Your task to perform on an android device: turn off smart reply in the gmail app Image 0: 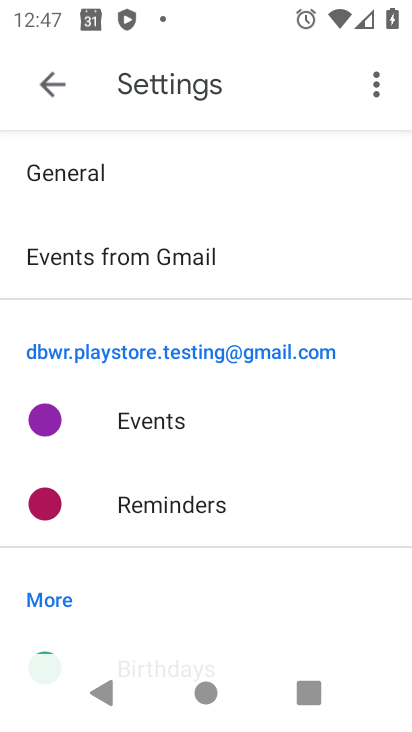
Step 0: press back button
Your task to perform on an android device: turn off smart reply in the gmail app Image 1: 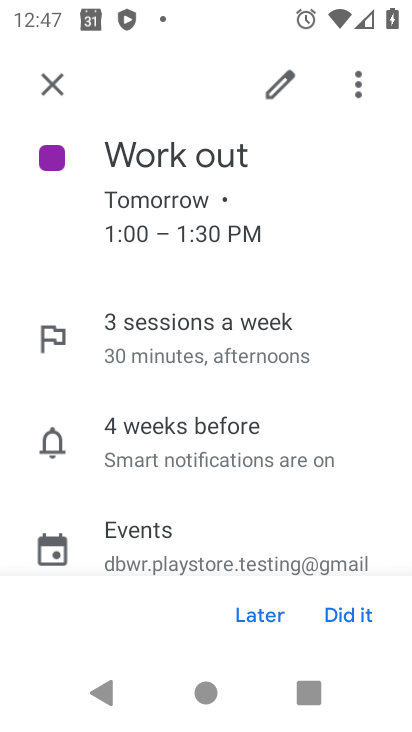
Step 1: press back button
Your task to perform on an android device: turn off smart reply in the gmail app Image 2: 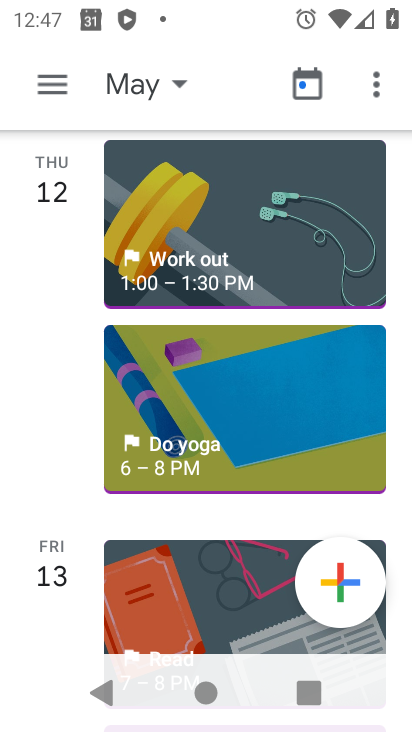
Step 2: press back button
Your task to perform on an android device: turn off smart reply in the gmail app Image 3: 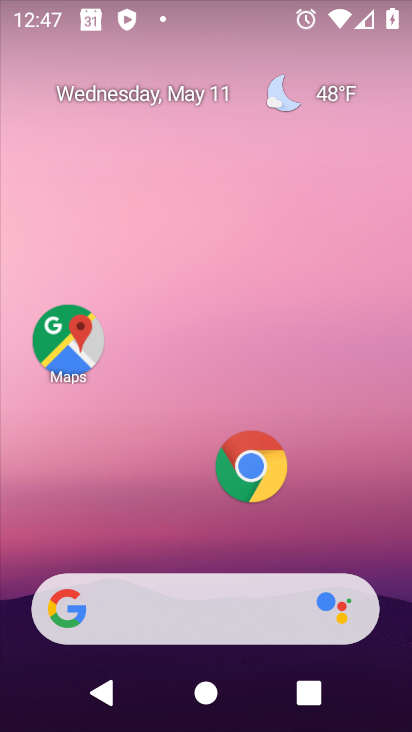
Step 3: drag from (167, 500) to (282, 75)
Your task to perform on an android device: turn off smart reply in the gmail app Image 4: 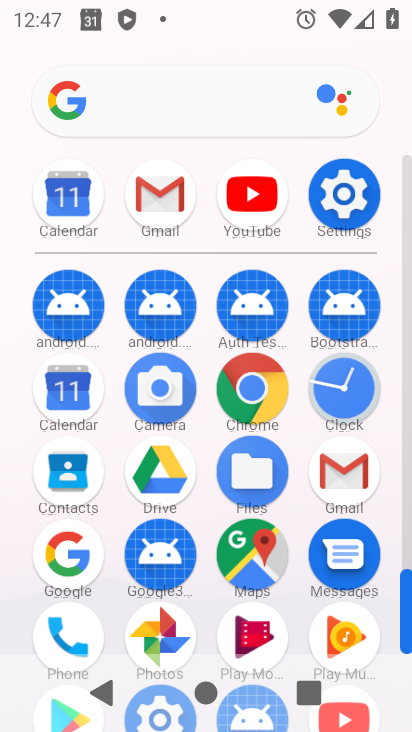
Step 4: click (161, 198)
Your task to perform on an android device: turn off smart reply in the gmail app Image 5: 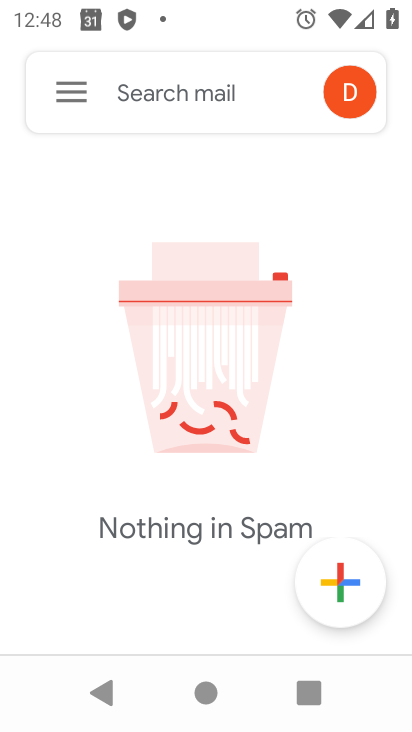
Step 5: click (49, 76)
Your task to perform on an android device: turn off smart reply in the gmail app Image 6: 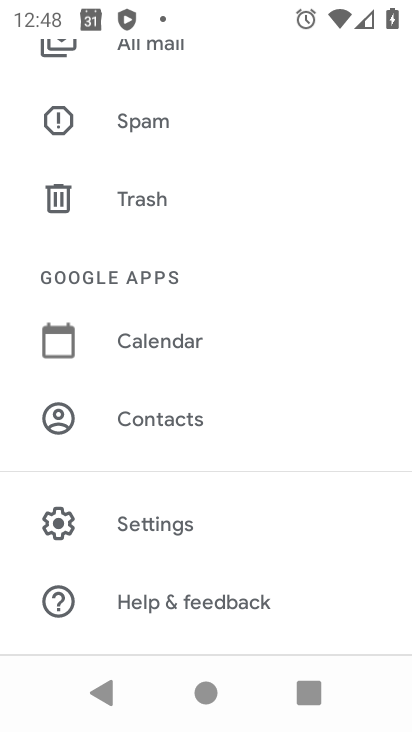
Step 6: click (162, 521)
Your task to perform on an android device: turn off smart reply in the gmail app Image 7: 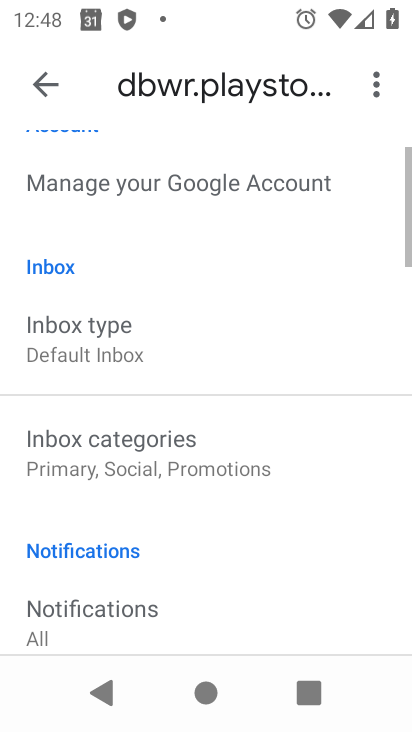
Step 7: task complete